Your task to perform on an android device: Go to privacy settings Image 0: 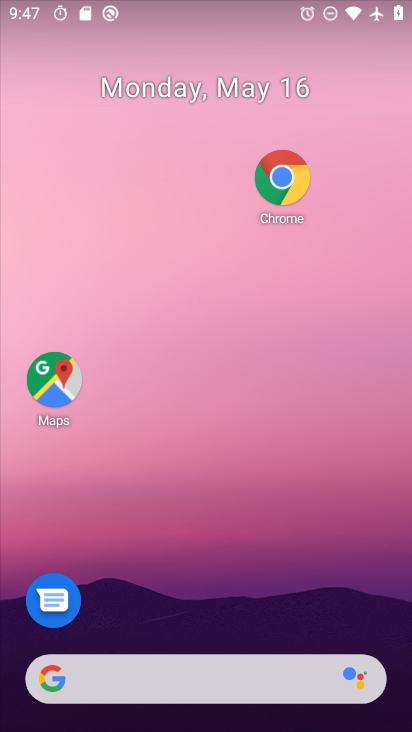
Step 0: drag from (191, 679) to (326, 186)
Your task to perform on an android device: Go to privacy settings Image 1: 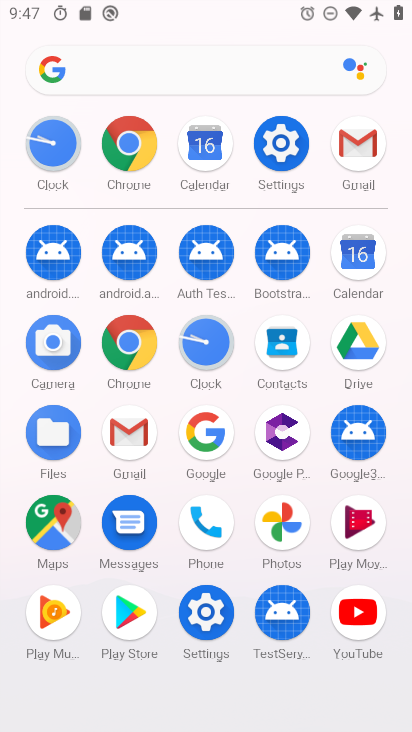
Step 1: click (279, 156)
Your task to perform on an android device: Go to privacy settings Image 2: 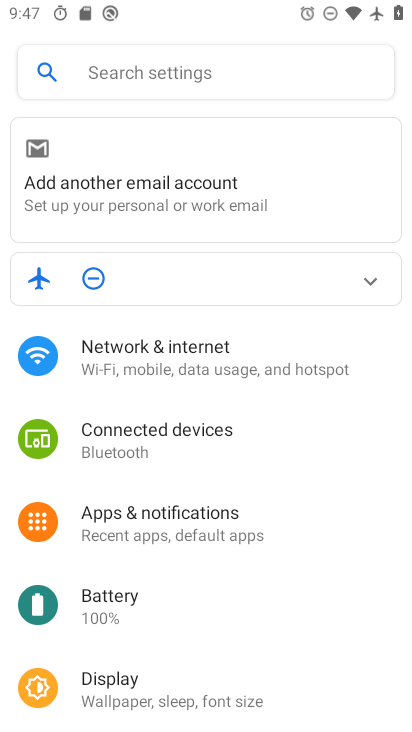
Step 2: drag from (234, 582) to (264, 74)
Your task to perform on an android device: Go to privacy settings Image 3: 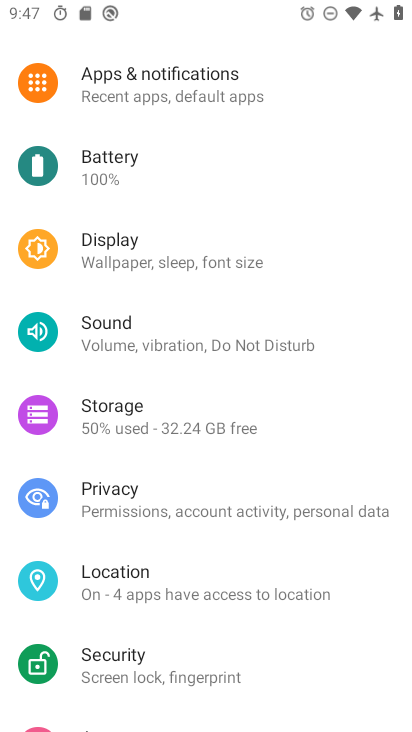
Step 3: click (131, 503)
Your task to perform on an android device: Go to privacy settings Image 4: 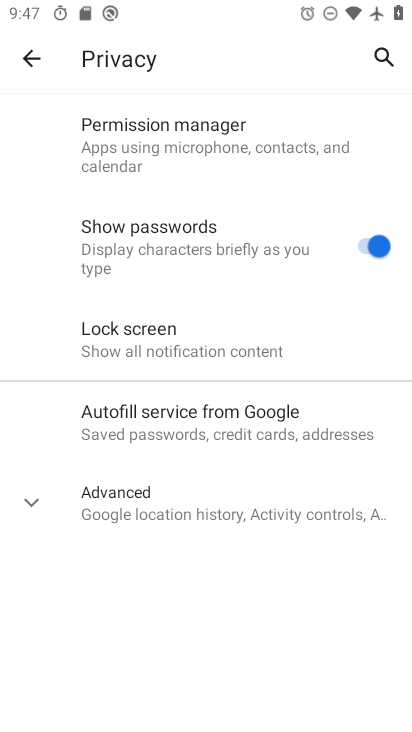
Step 4: task complete